Your task to perform on an android device: Open maps Image 0: 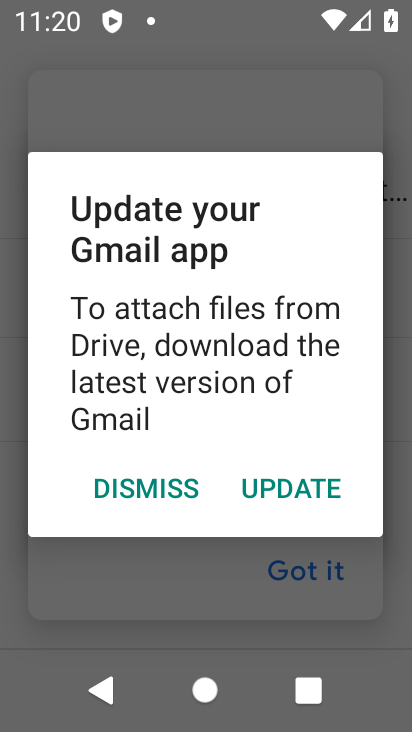
Step 0: press home button
Your task to perform on an android device: Open maps Image 1: 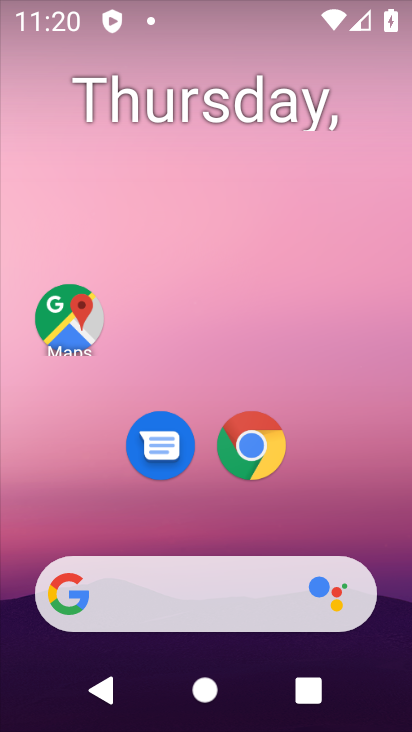
Step 1: click (53, 302)
Your task to perform on an android device: Open maps Image 2: 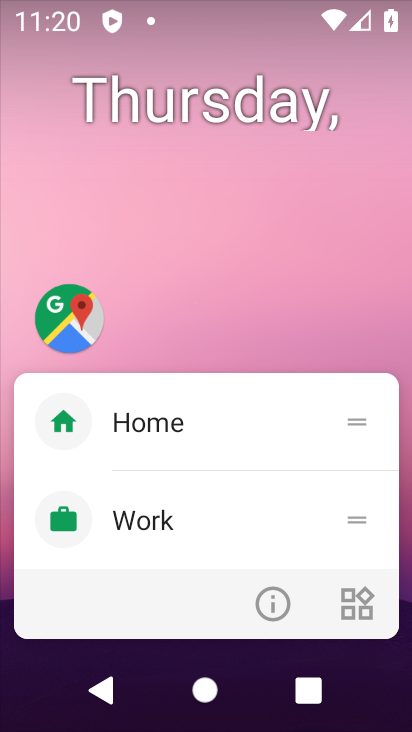
Step 2: click (52, 302)
Your task to perform on an android device: Open maps Image 3: 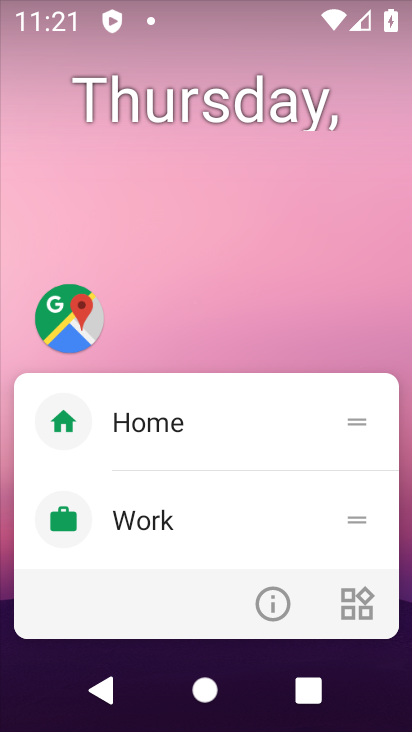
Step 3: click (52, 301)
Your task to perform on an android device: Open maps Image 4: 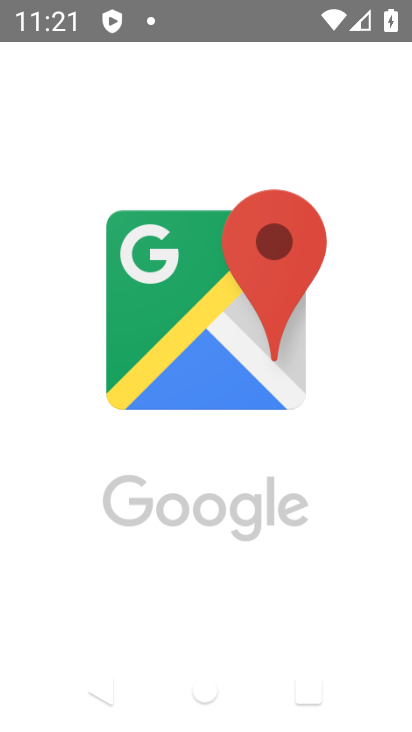
Step 4: click (52, 301)
Your task to perform on an android device: Open maps Image 5: 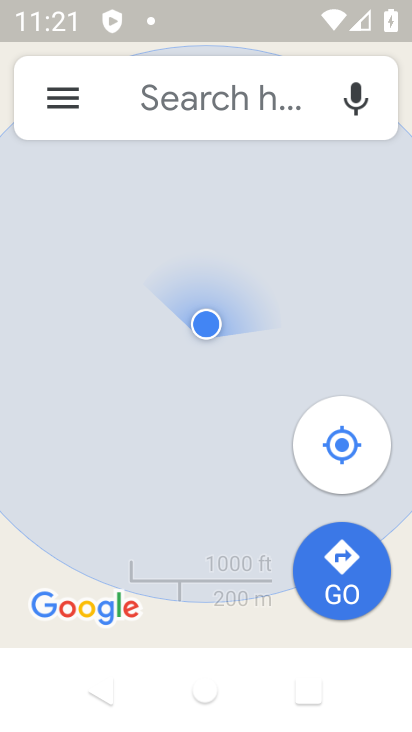
Step 5: task complete